Your task to perform on an android device: Show me recent news Image 0: 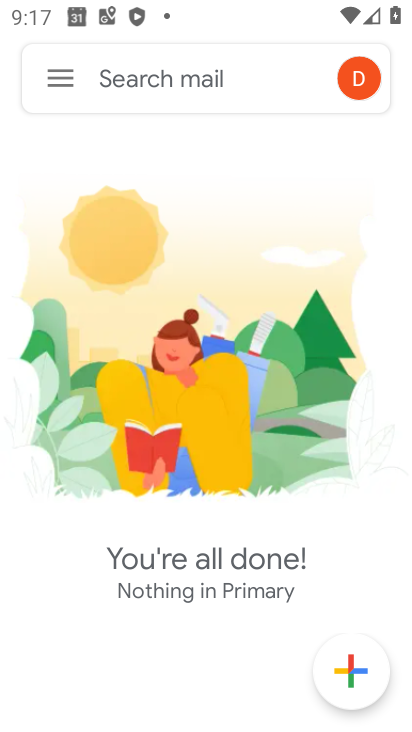
Step 0: press home button
Your task to perform on an android device: Show me recent news Image 1: 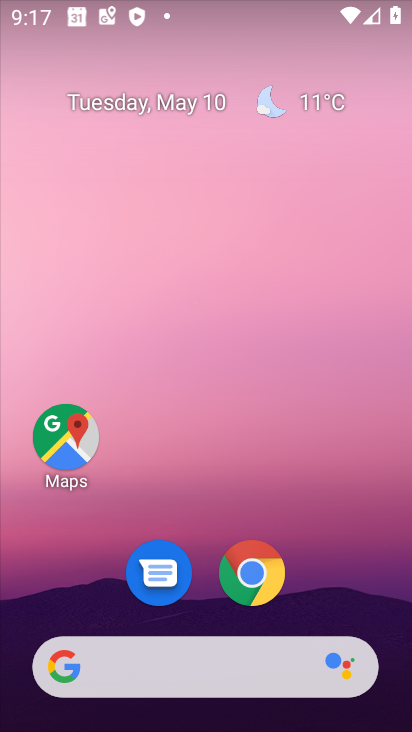
Step 1: click (128, 685)
Your task to perform on an android device: Show me recent news Image 2: 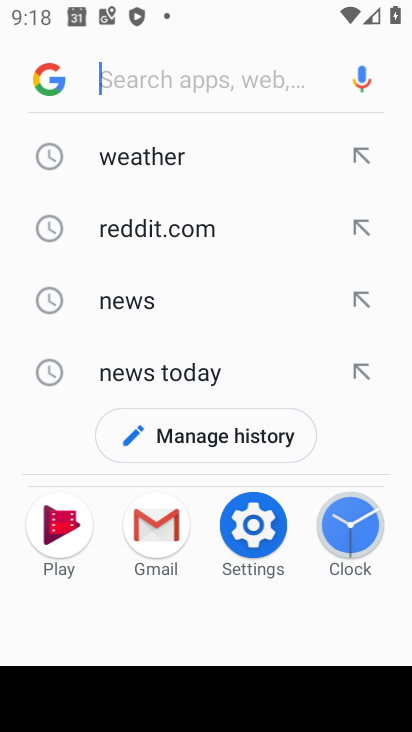
Step 2: click (144, 70)
Your task to perform on an android device: Show me recent news Image 3: 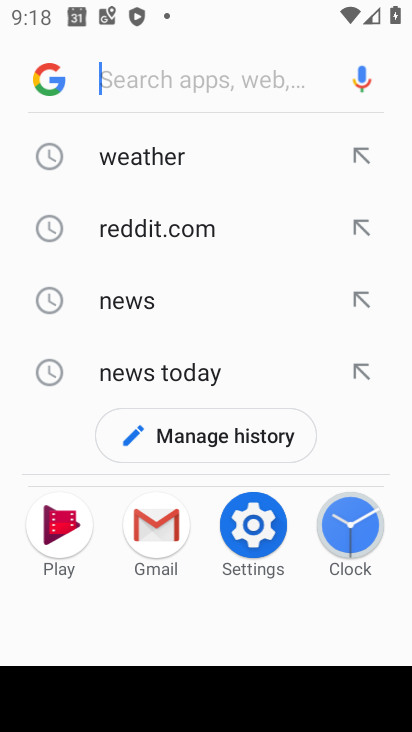
Step 3: type "recent news"
Your task to perform on an android device: Show me recent news Image 4: 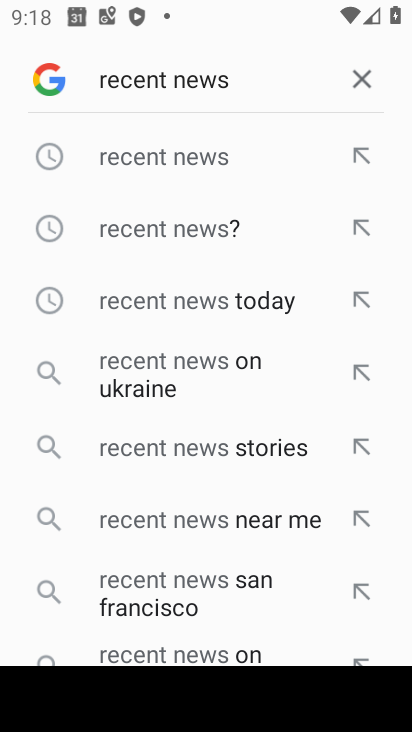
Step 4: click (135, 165)
Your task to perform on an android device: Show me recent news Image 5: 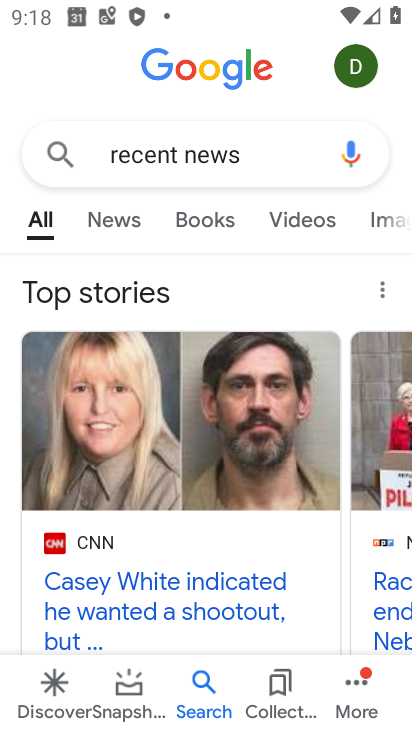
Step 5: click (108, 219)
Your task to perform on an android device: Show me recent news Image 6: 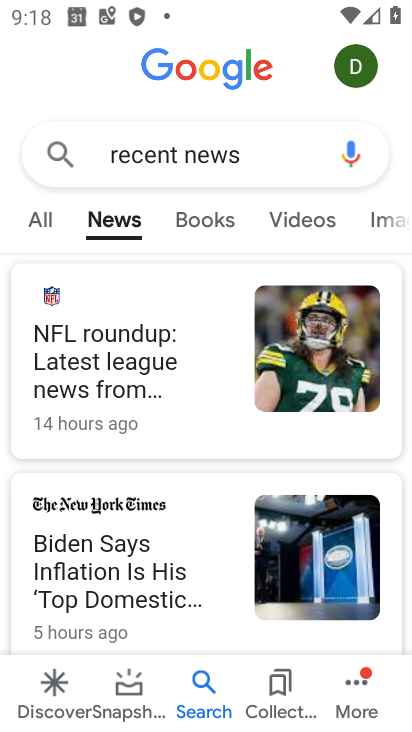
Step 6: drag from (155, 591) to (156, 320)
Your task to perform on an android device: Show me recent news Image 7: 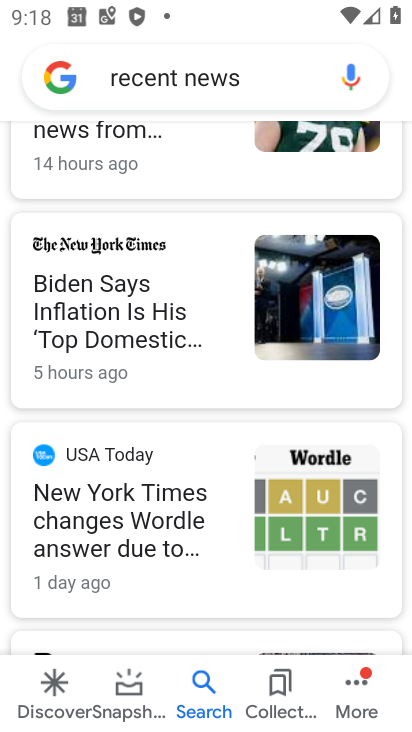
Step 7: drag from (121, 511) to (134, 282)
Your task to perform on an android device: Show me recent news Image 8: 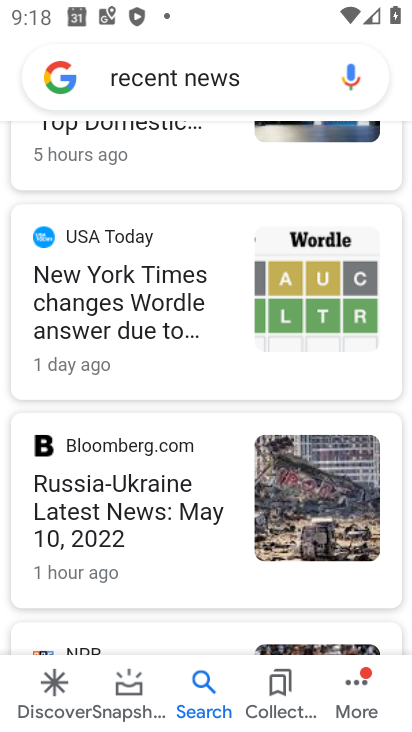
Step 8: drag from (137, 533) to (144, 291)
Your task to perform on an android device: Show me recent news Image 9: 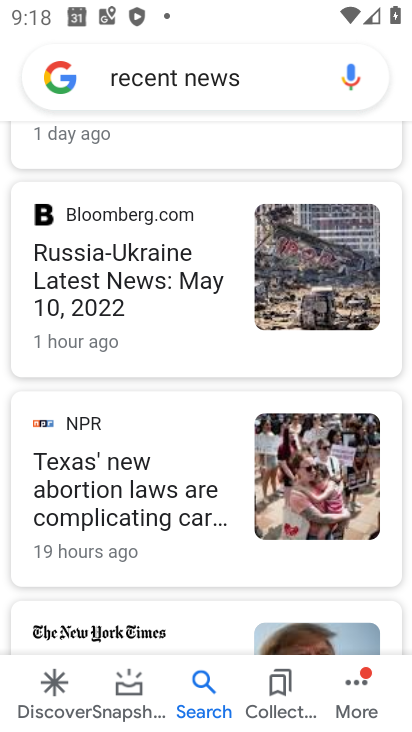
Step 9: click (141, 293)
Your task to perform on an android device: Show me recent news Image 10: 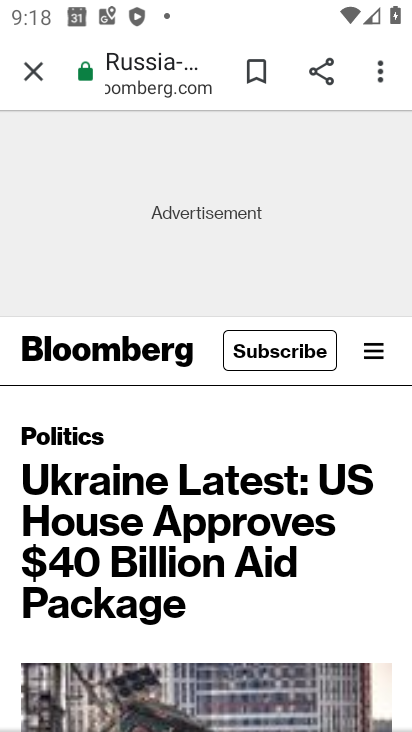
Step 10: task complete